Your task to perform on an android device: Go to calendar. Show me events next week Image 0: 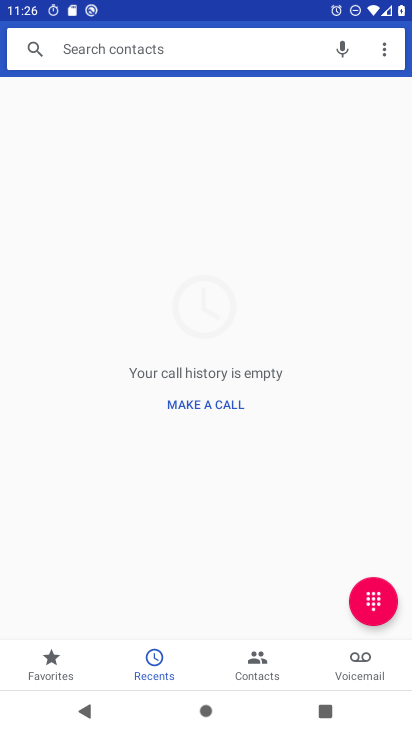
Step 0: press home button
Your task to perform on an android device: Go to calendar. Show me events next week Image 1: 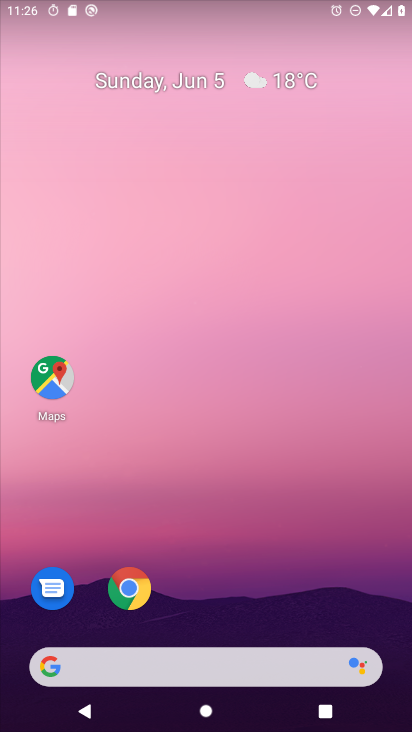
Step 1: drag from (364, 628) to (384, 214)
Your task to perform on an android device: Go to calendar. Show me events next week Image 2: 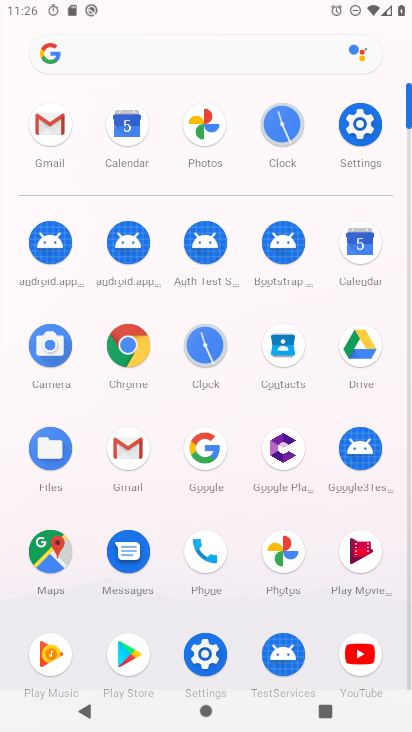
Step 2: click (367, 254)
Your task to perform on an android device: Go to calendar. Show me events next week Image 3: 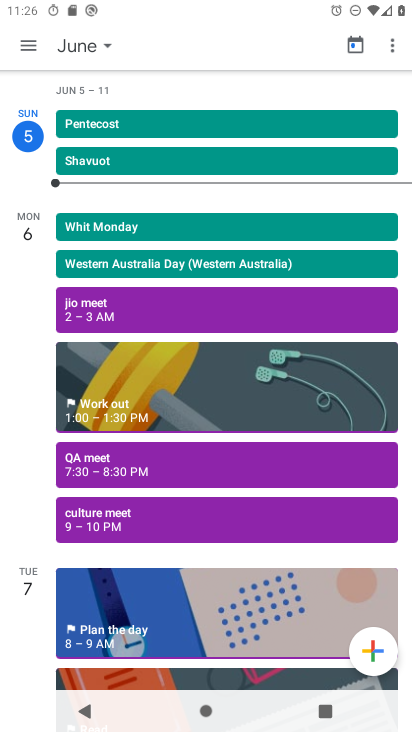
Step 3: click (107, 44)
Your task to perform on an android device: Go to calendar. Show me events next week Image 4: 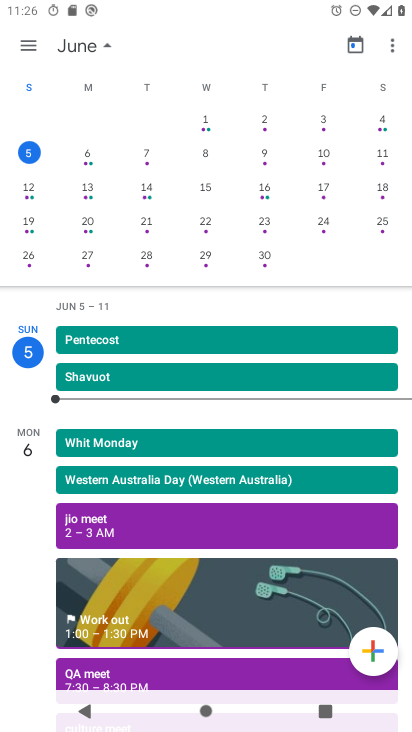
Step 4: click (85, 191)
Your task to perform on an android device: Go to calendar. Show me events next week Image 5: 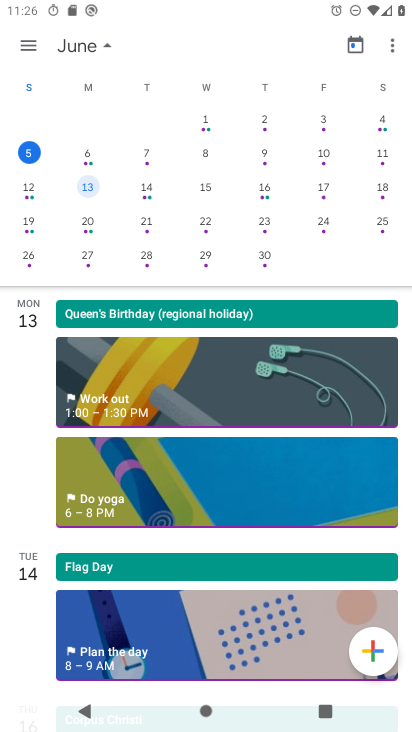
Step 5: task complete